Your task to perform on an android device: Open internet settings Image 0: 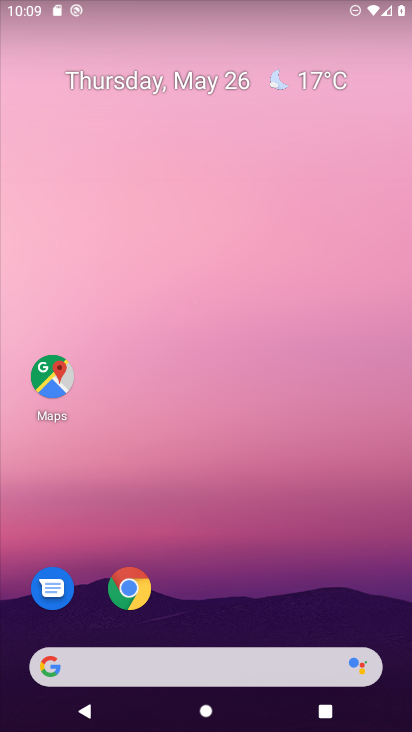
Step 0: drag from (372, 617) to (273, 10)
Your task to perform on an android device: Open internet settings Image 1: 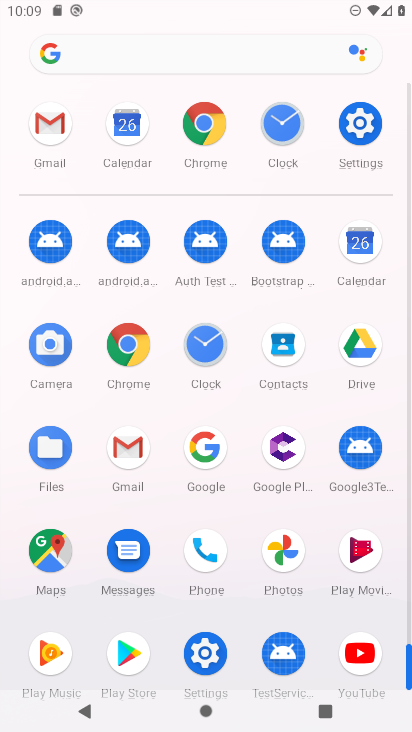
Step 1: click (206, 654)
Your task to perform on an android device: Open internet settings Image 2: 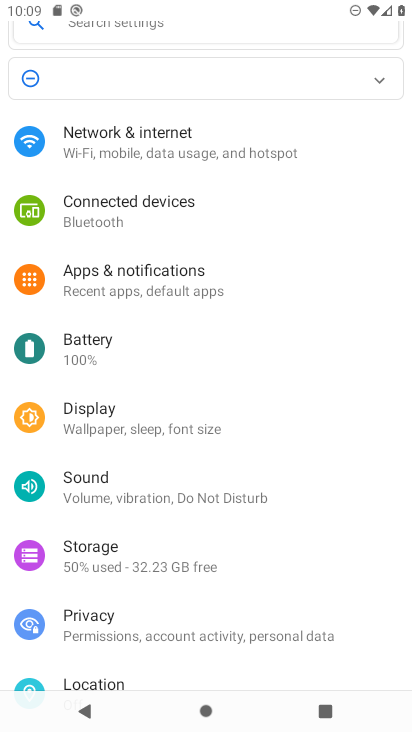
Step 2: click (147, 143)
Your task to perform on an android device: Open internet settings Image 3: 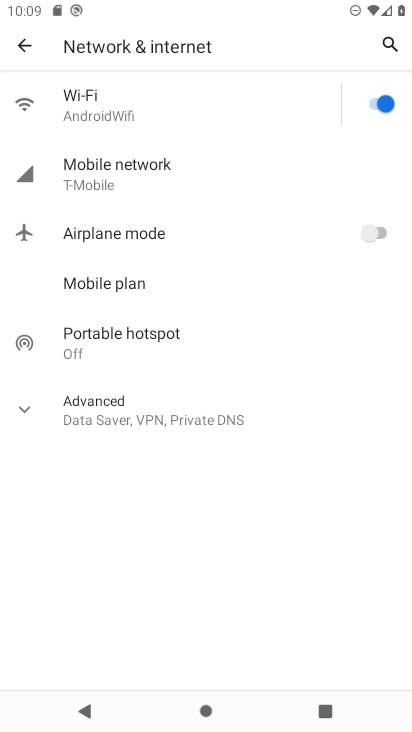
Step 3: click (24, 407)
Your task to perform on an android device: Open internet settings Image 4: 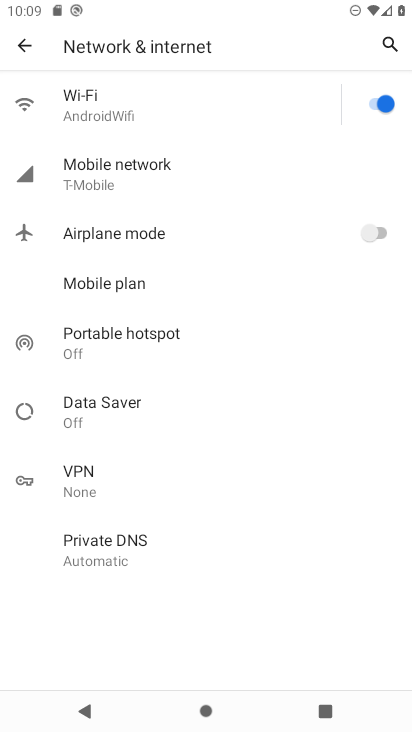
Step 4: click (118, 170)
Your task to perform on an android device: Open internet settings Image 5: 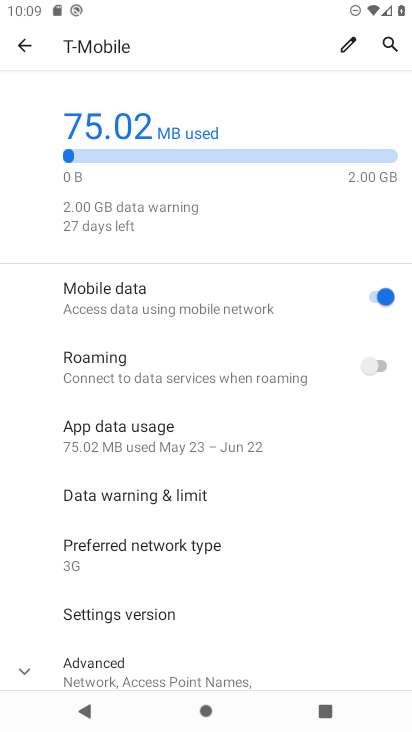
Step 5: task complete